Your task to perform on an android device: toggle show notifications on the lock screen Image 0: 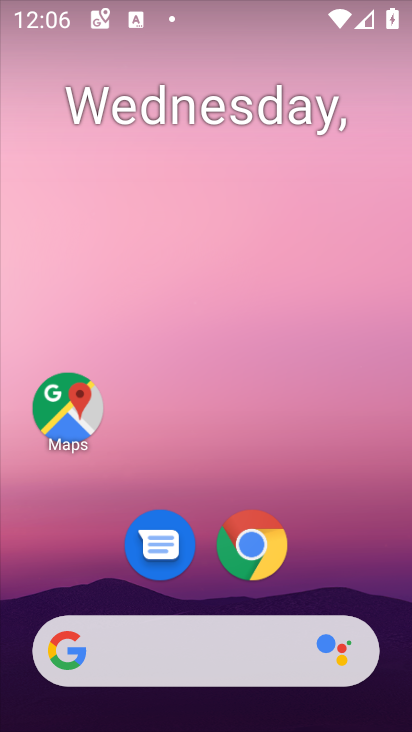
Step 0: drag from (178, 610) to (184, 228)
Your task to perform on an android device: toggle show notifications on the lock screen Image 1: 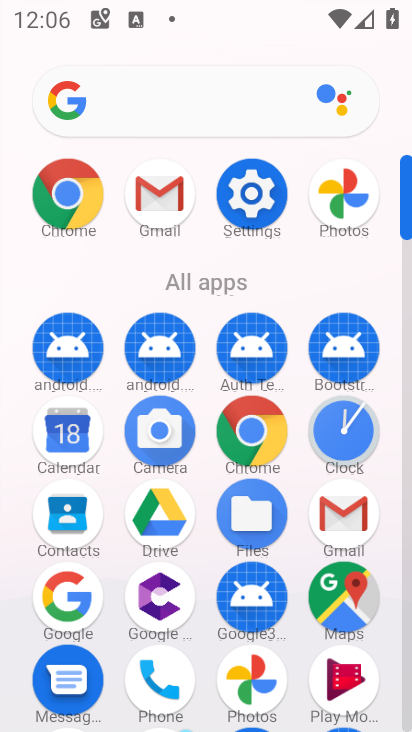
Step 1: click (255, 193)
Your task to perform on an android device: toggle show notifications on the lock screen Image 2: 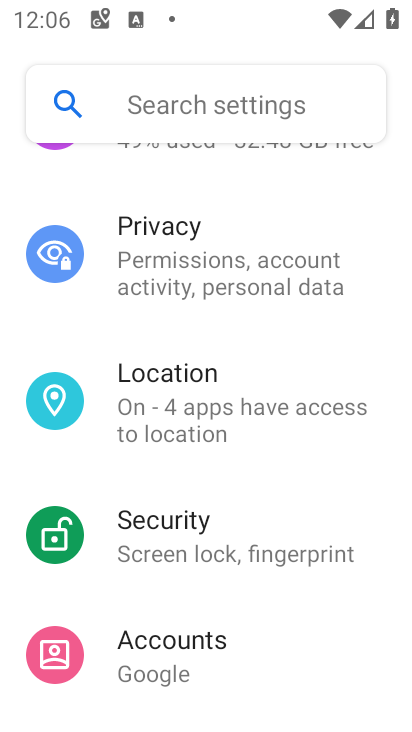
Step 2: drag from (196, 221) to (185, 625)
Your task to perform on an android device: toggle show notifications on the lock screen Image 3: 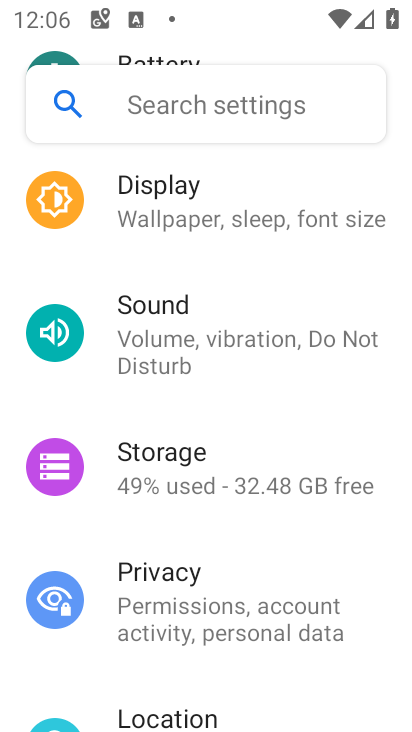
Step 3: drag from (242, 317) to (248, 636)
Your task to perform on an android device: toggle show notifications on the lock screen Image 4: 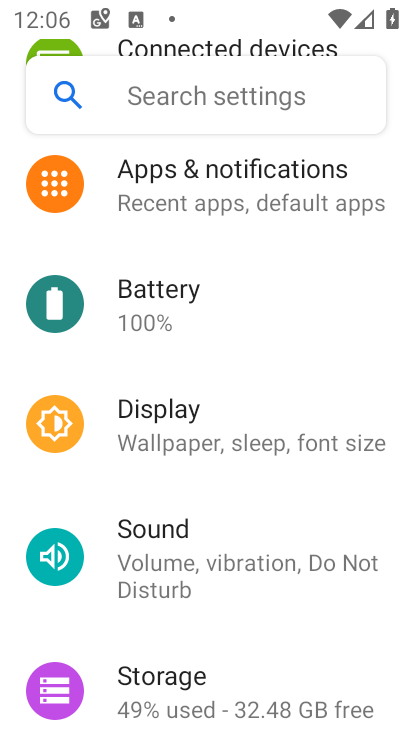
Step 4: click (200, 202)
Your task to perform on an android device: toggle show notifications on the lock screen Image 5: 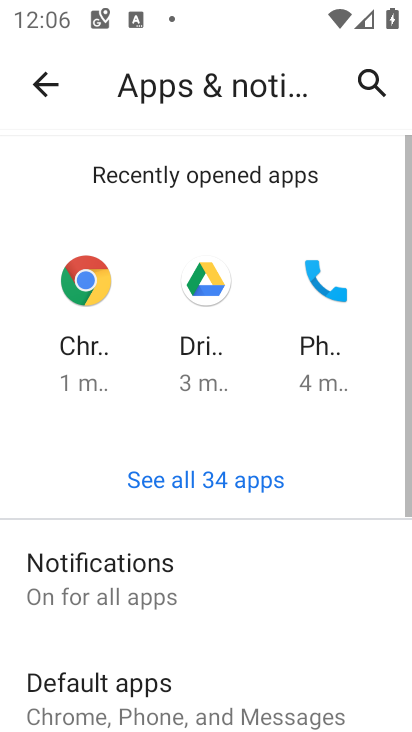
Step 5: drag from (142, 639) to (135, 387)
Your task to perform on an android device: toggle show notifications on the lock screen Image 6: 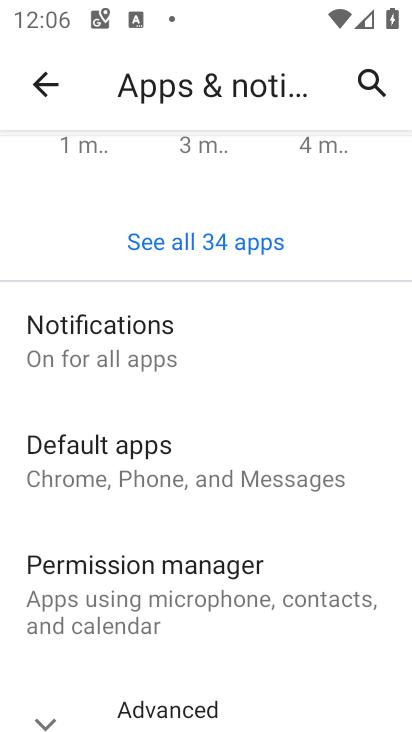
Step 6: click (127, 344)
Your task to perform on an android device: toggle show notifications on the lock screen Image 7: 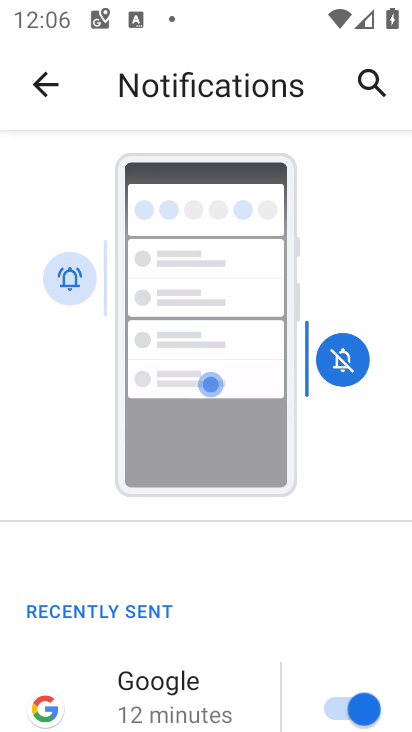
Step 7: drag from (181, 609) to (165, 176)
Your task to perform on an android device: toggle show notifications on the lock screen Image 8: 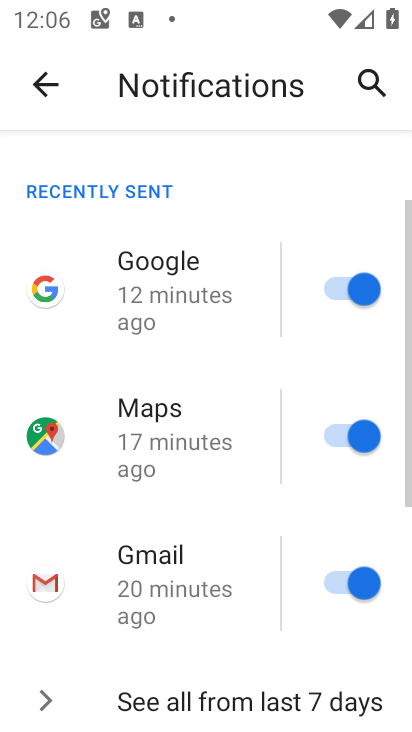
Step 8: drag from (218, 608) to (222, 255)
Your task to perform on an android device: toggle show notifications on the lock screen Image 9: 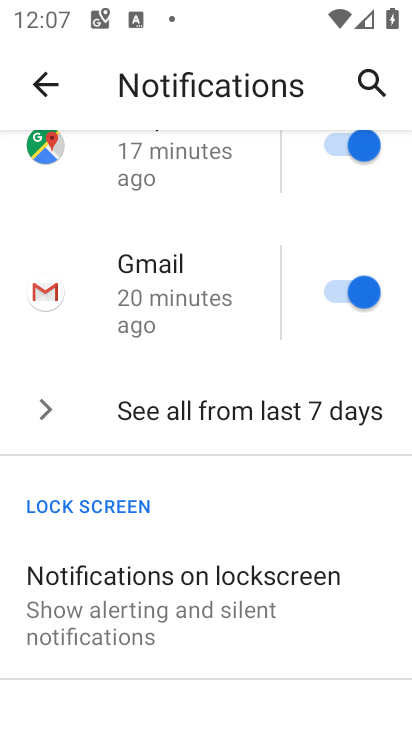
Step 9: click (204, 595)
Your task to perform on an android device: toggle show notifications on the lock screen Image 10: 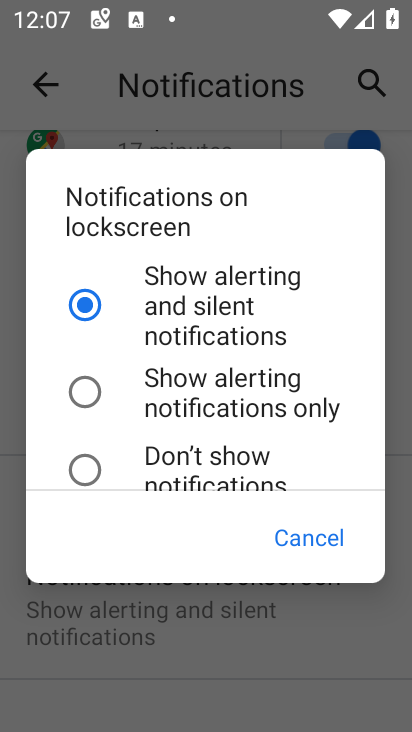
Step 10: task complete